Your task to perform on an android device: Go to eBay Image 0: 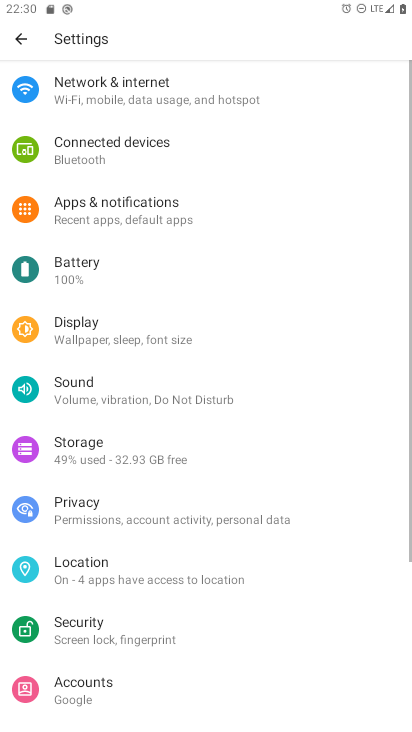
Step 0: press home button
Your task to perform on an android device: Go to eBay Image 1: 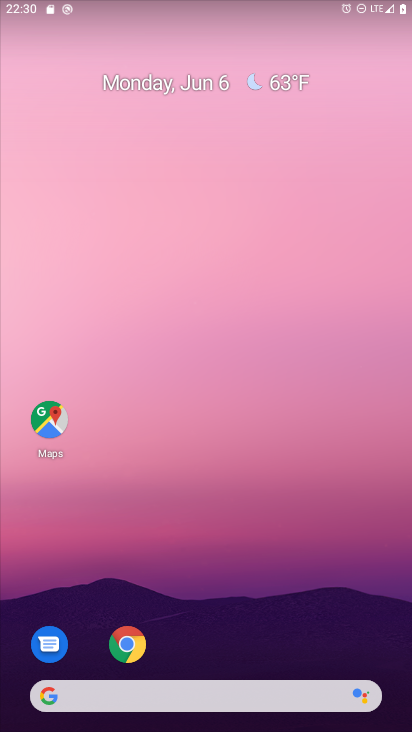
Step 1: drag from (205, 716) to (238, 137)
Your task to perform on an android device: Go to eBay Image 2: 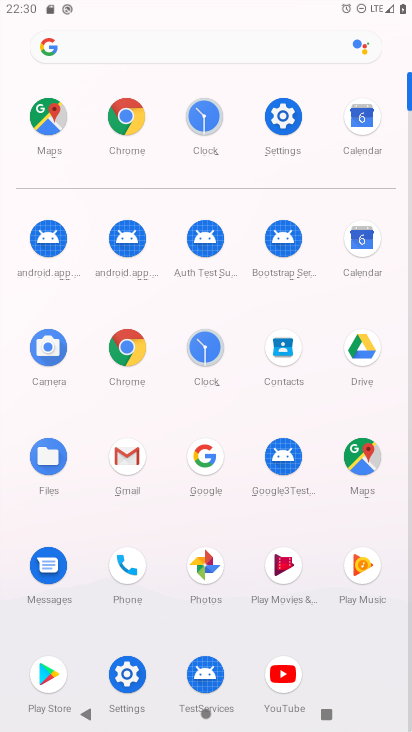
Step 2: click (132, 102)
Your task to perform on an android device: Go to eBay Image 3: 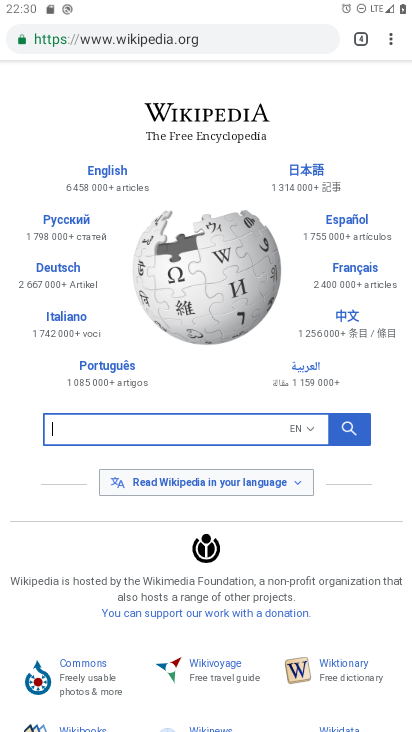
Step 3: click (362, 30)
Your task to perform on an android device: Go to eBay Image 4: 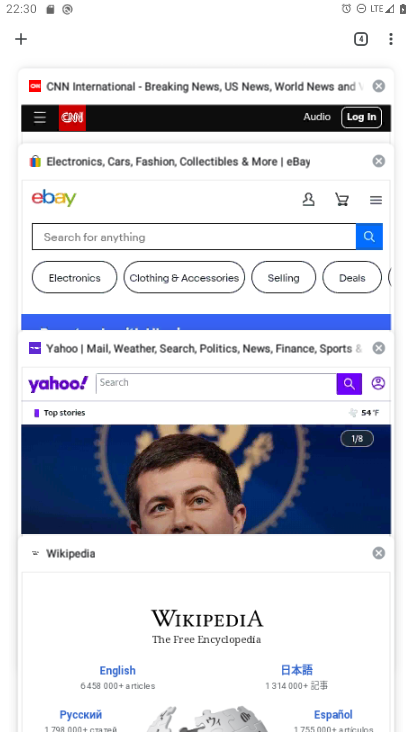
Step 4: click (24, 44)
Your task to perform on an android device: Go to eBay Image 5: 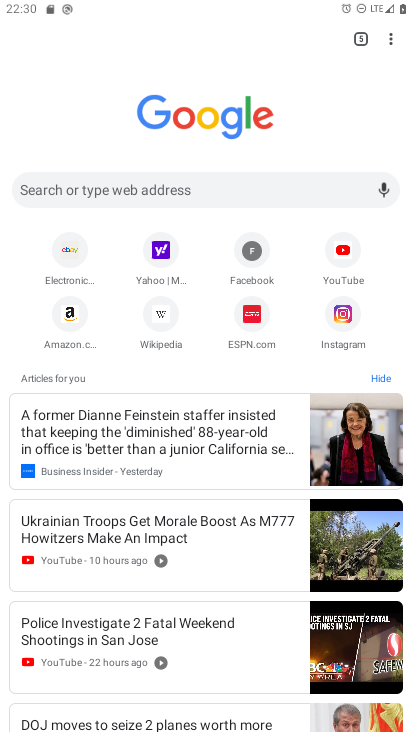
Step 5: click (78, 255)
Your task to perform on an android device: Go to eBay Image 6: 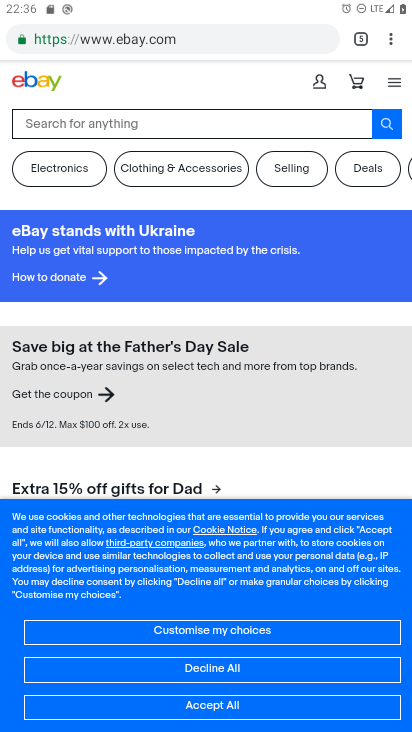
Step 6: task complete